Your task to perform on an android device: Go to Google Image 0: 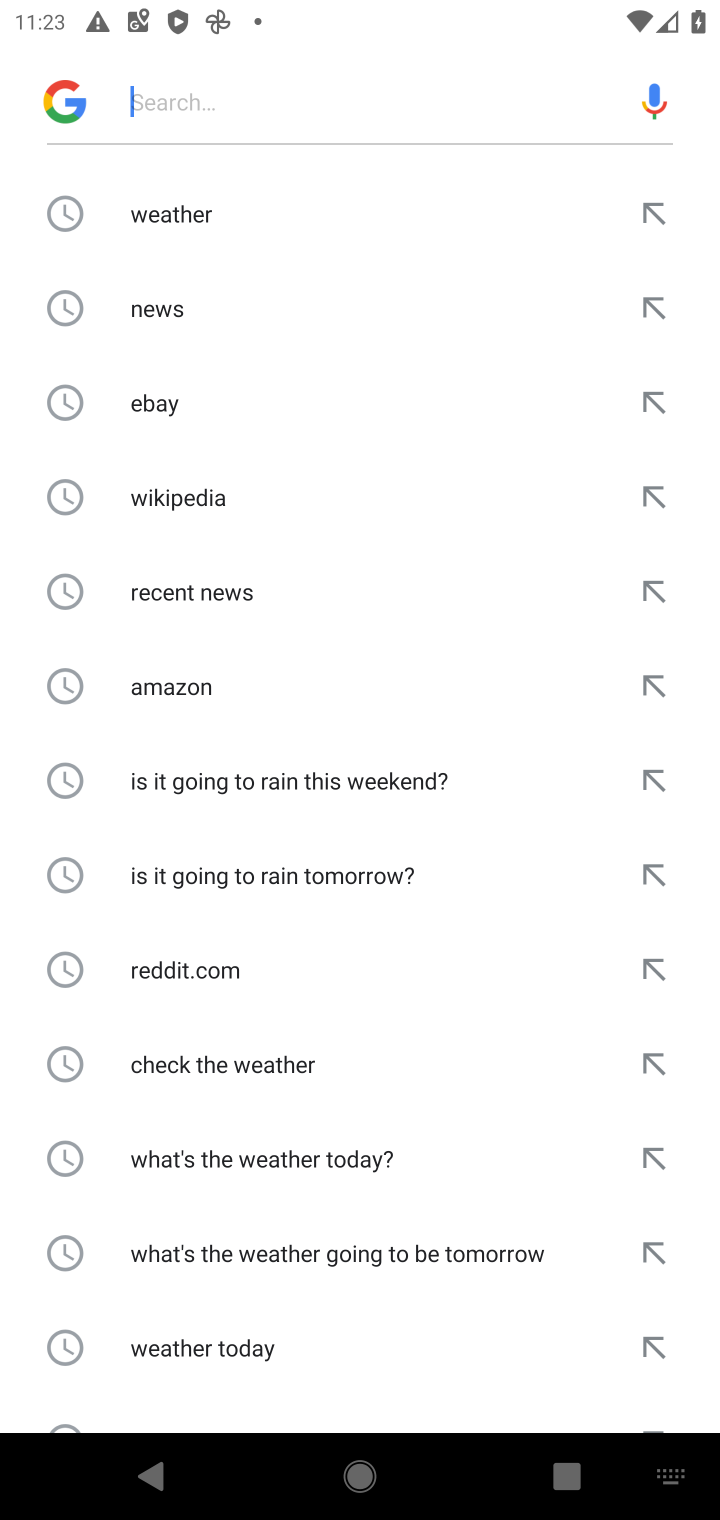
Step 0: press home button
Your task to perform on an android device: Go to Google Image 1: 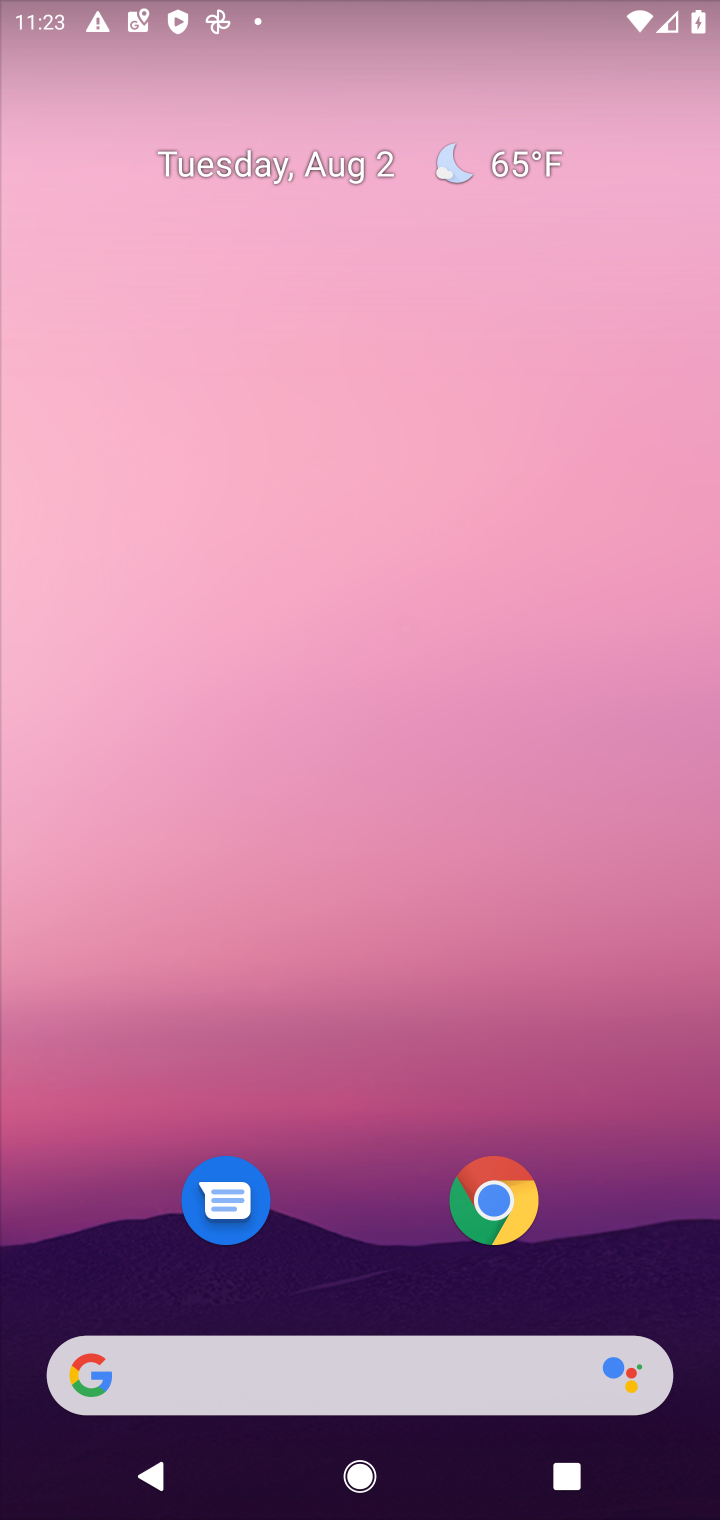
Step 1: click (496, 1214)
Your task to perform on an android device: Go to Google Image 2: 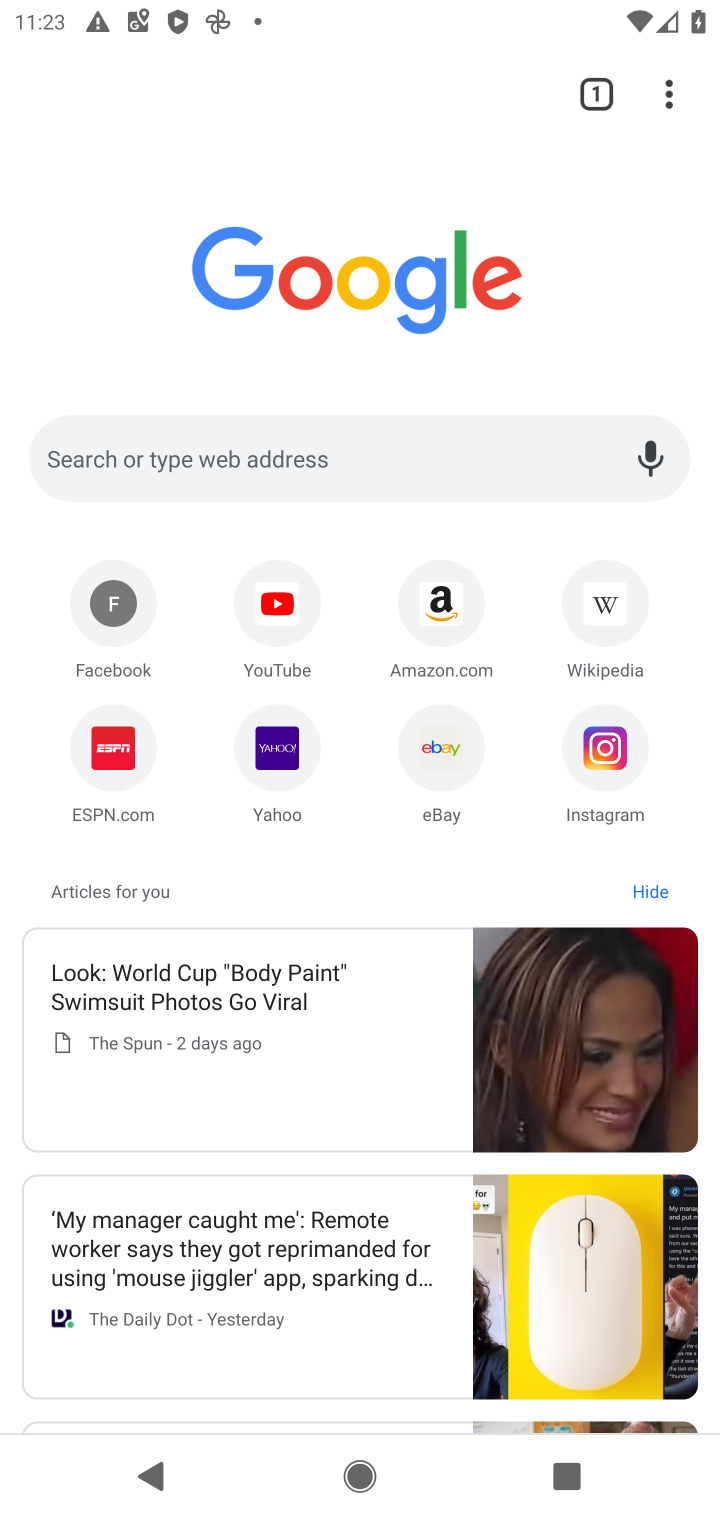
Step 2: task complete